Your task to perform on an android device: delete the emails in spam in the gmail app Image 0: 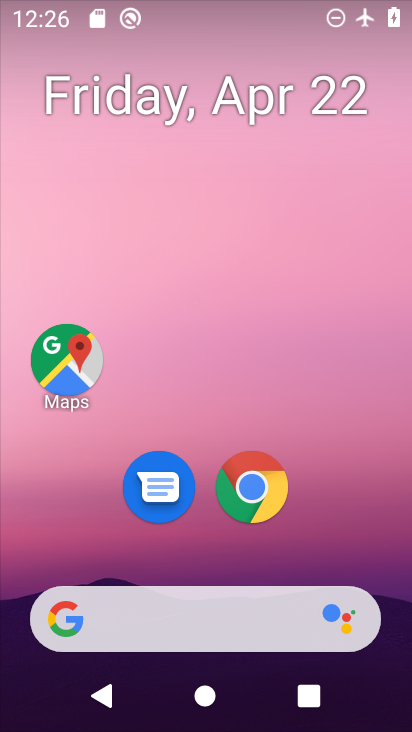
Step 0: drag from (304, 520) to (311, 190)
Your task to perform on an android device: delete the emails in spam in the gmail app Image 1: 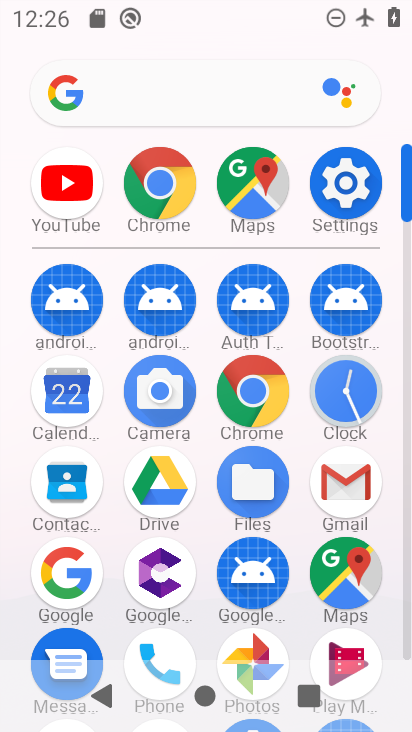
Step 1: click (355, 478)
Your task to perform on an android device: delete the emails in spam in the gmail app Image 2: 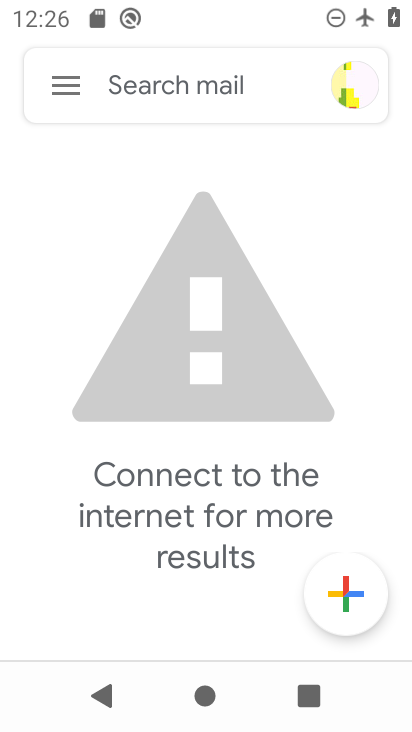
Step 2: click (66, 89)
Your task to perform on an android device: delete the emails in spam in the gmail app Image 3: 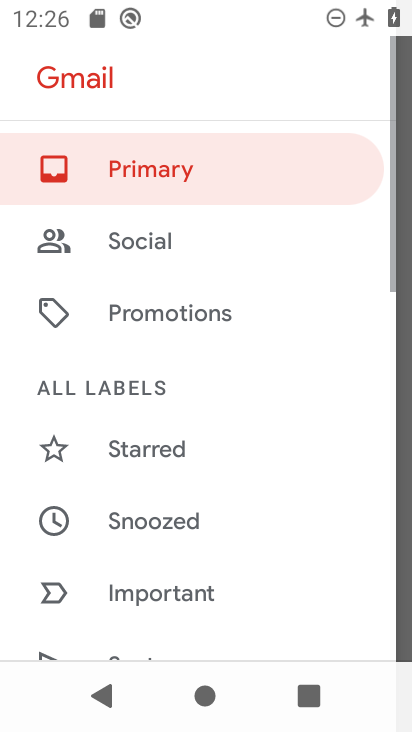
Step 3: drag from (194, 582) to (278, 154)
Your task to perform on an android device: delete the emails in spam in the gmail app Image 4: 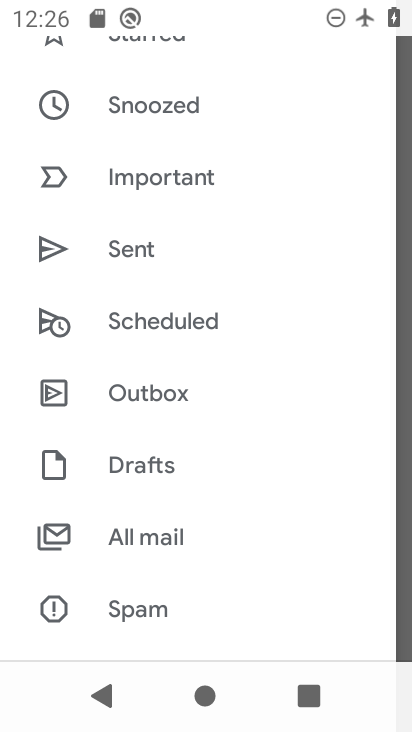
Step 4: click (124, 617)
Your task to perform on an android device: delete the emails in spam in the gmail app Image 5: 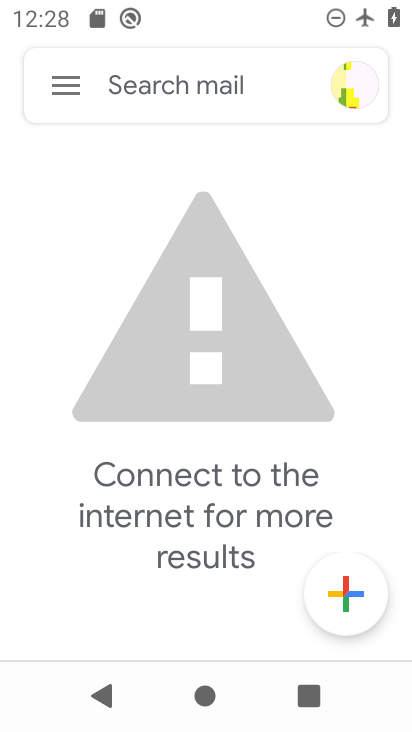
Step 5: task complete